Your task to perform on an android device: set default search engine in the chrome app Image 0: 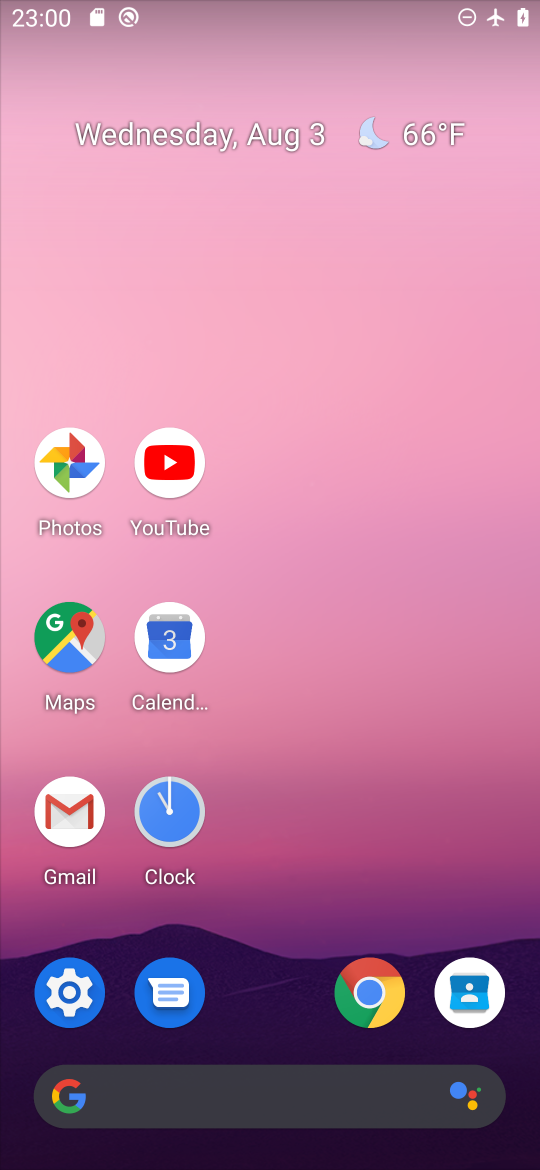
Step 0: click (376, 990)
Your task to perform on an android device: set default search engine in the chrome app Image 1: 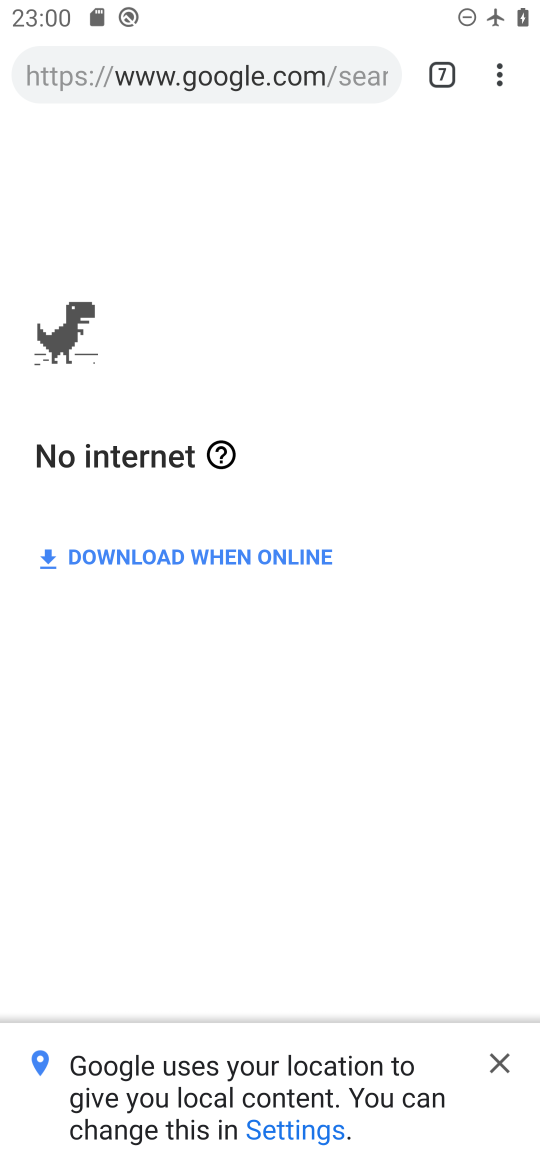
Step 1: click (515, 73)
Your task to perform on an android device: set default search engine in the chrome app Image 2: 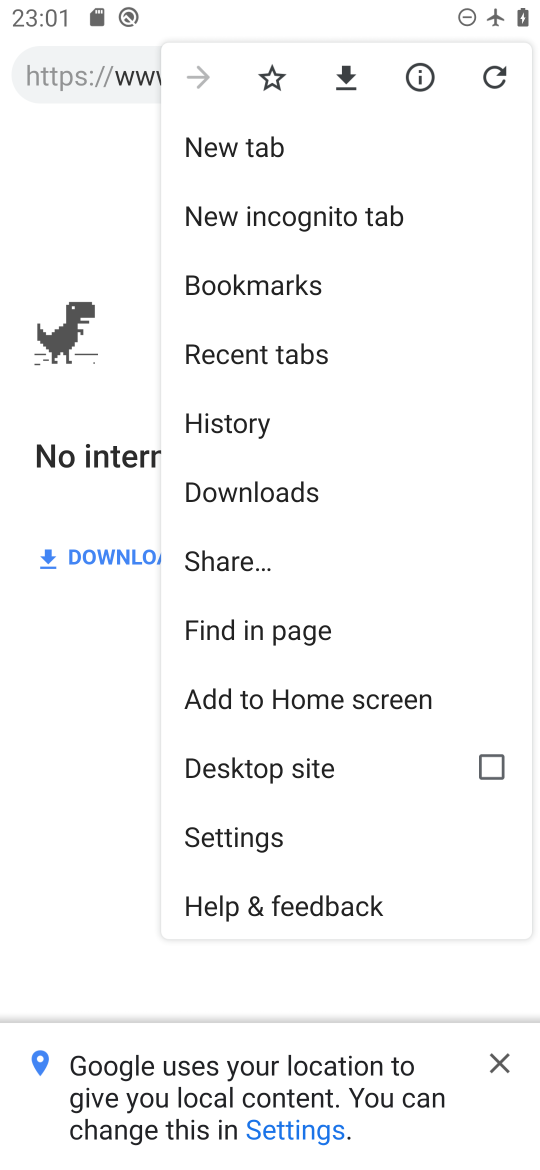
Step 2: click (271, 841)
Your task to perform on an android device: set default search engine in the chrome app Image 3: 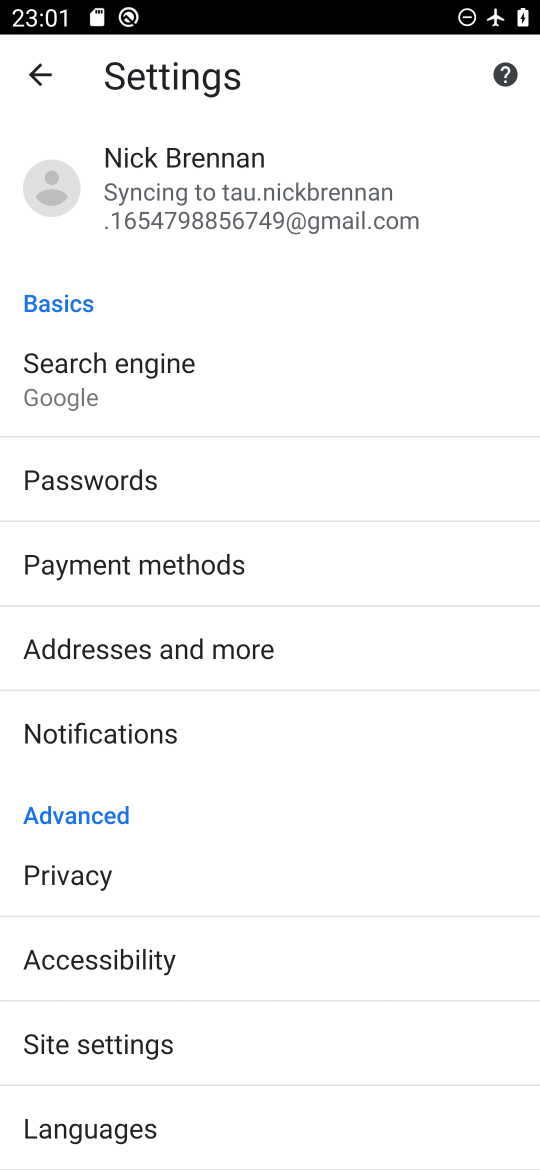
Step 3: click (81, 350)
Your task to perform on an android device: set default search engine in the chrome app Image 4: 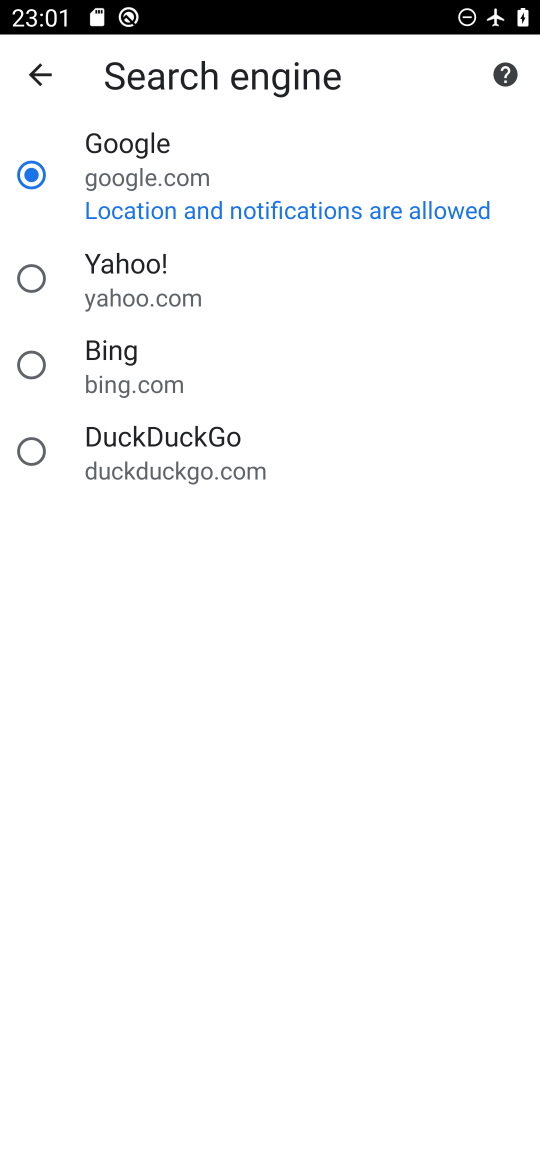
Step 4: task complete